Your task to perform on an android device: turn smart compose on in the gmail app Image 0: 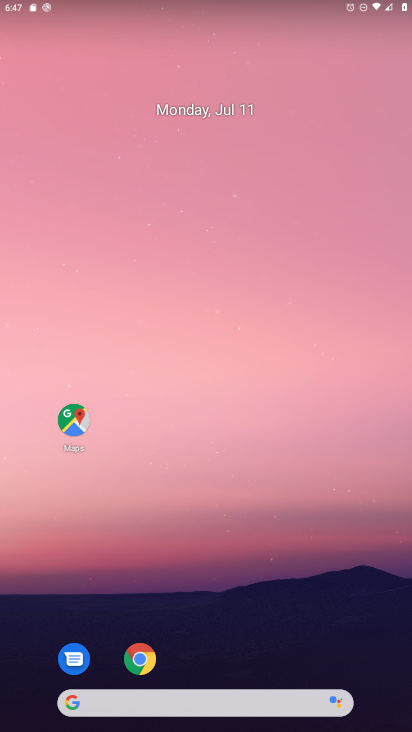
Step 0: drag from (367, 654) to (271, 95)
Your task to perform on an android device: turn smart compose on in the gmail app Image 1: 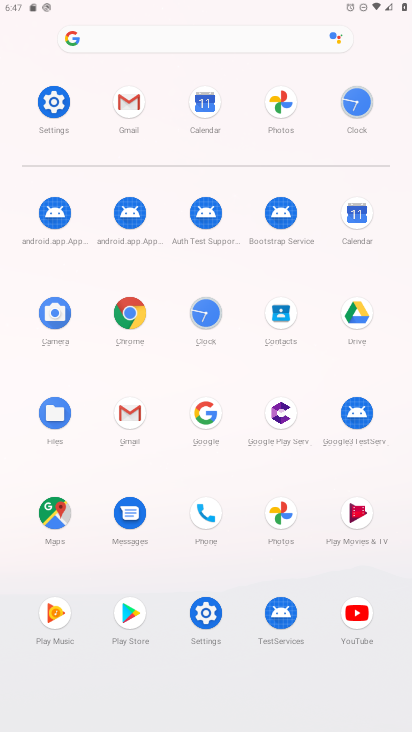
Step 1: click (130, 412)
Your task to perform on an android device: turn smart compose on in the gmail app Image 2: 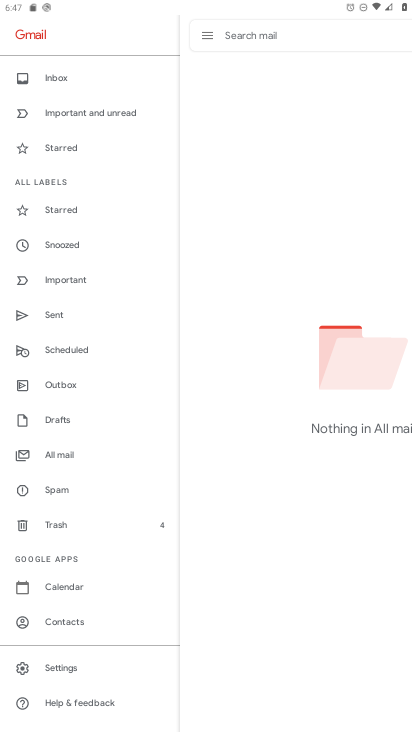
Step 2: click (60, 659)
Your task to perform on an android device: turn smart compose on in the gmail app Image 3: 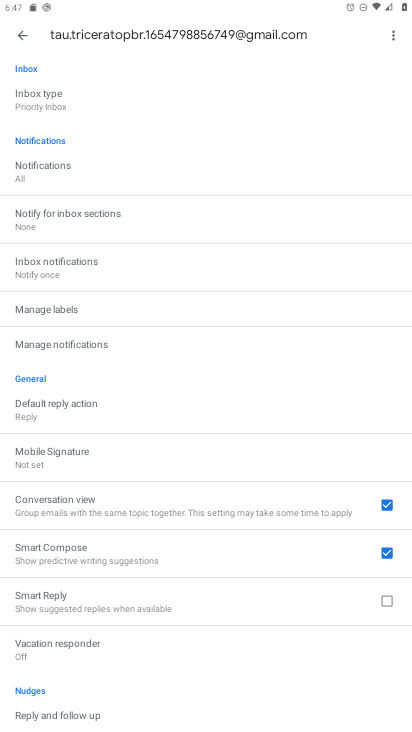
Step 3: task complete